Your task to perform on an android device: Go to CNN.com Image 0: 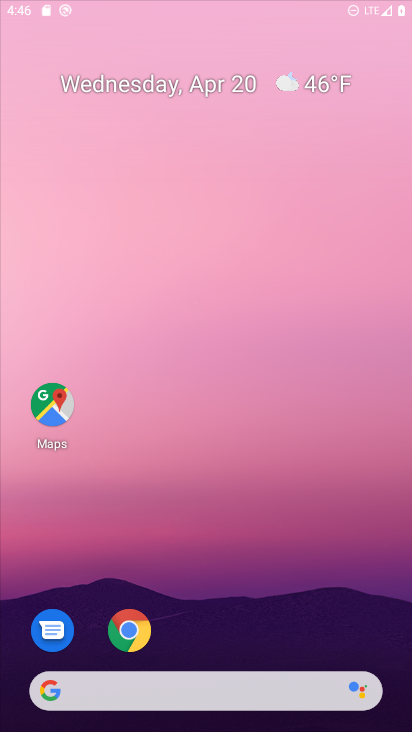
Step 0: click (295, 8)
Your task to perform on an android device: Go to CNN.com Image 1: 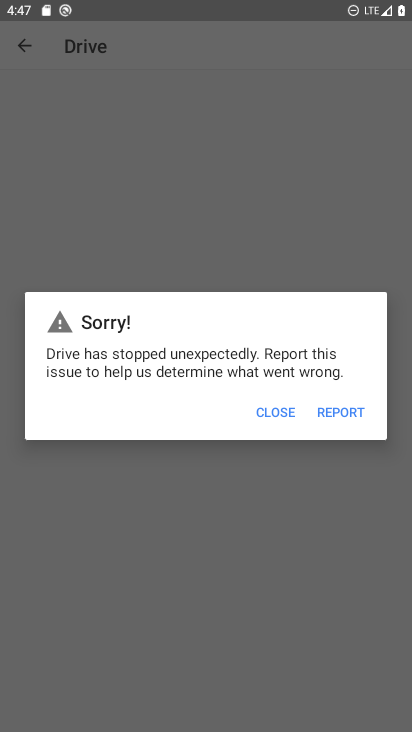
Step 1: press home button
Your task to perform on an android device: Go to CNN.com Image 2: 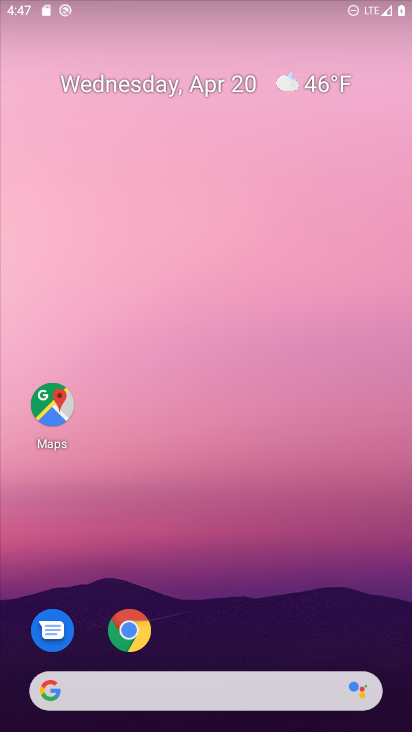
Step 2: drag from (286, 545) to (308, 0)
Your task to perform on an android device: Go to CNN.com Image 3: 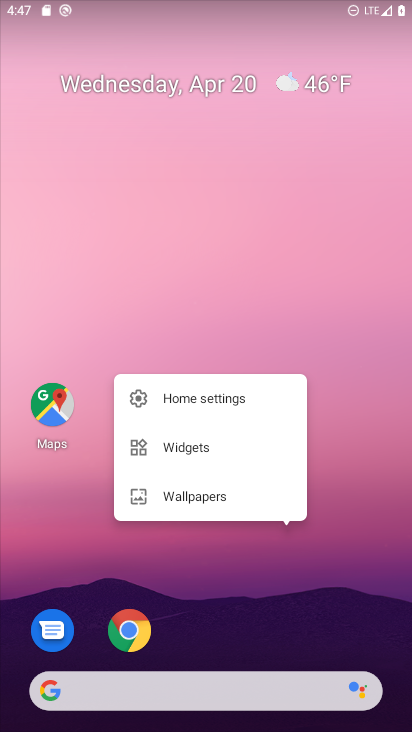
Step 3: click (332, 510)
Your task to perform on an android device: Go to CNN.com Image 4: 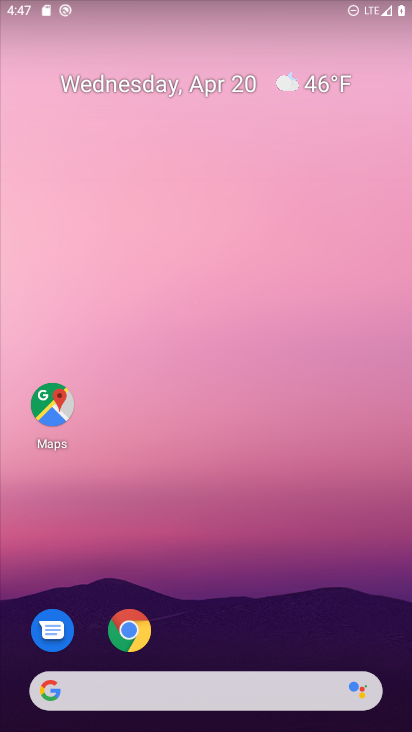
Step 4: drag from (311, 666) to (302, 21)
Your task to perform on an android device: Go to CNN.com Image 5: 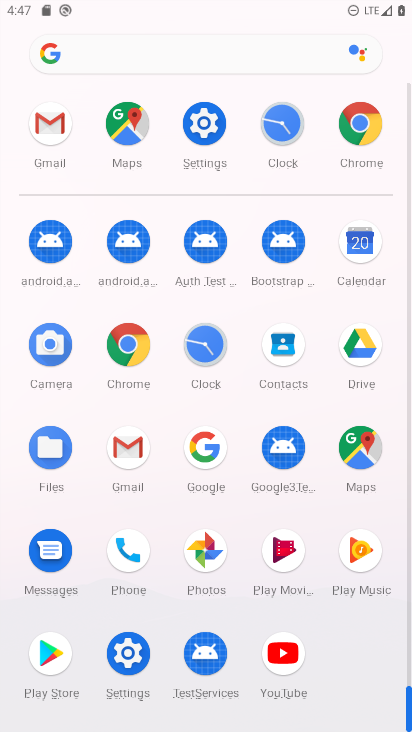
Step 5: click (125, 347)
Your task to perform on an android device: Go to CNN.com Image 6: 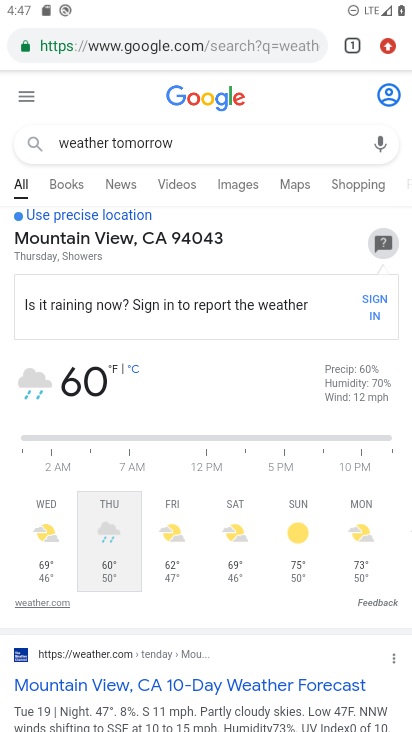
Step 6: click (292, 43)
Your task to perform on an android device: Go to CNN.com Image 7: 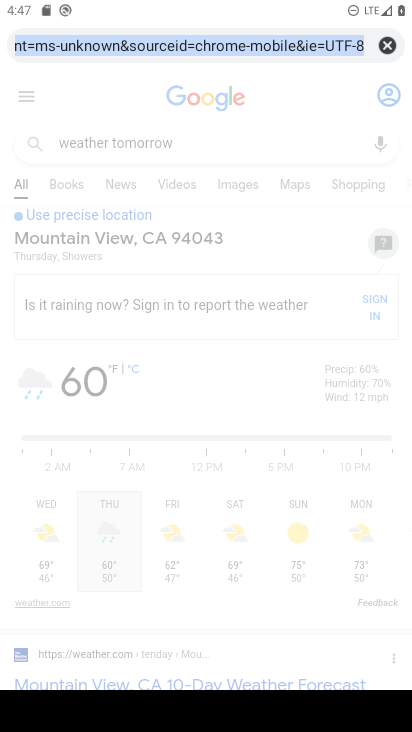
Step 7: click (391, 45)
Your task to perform on an android device: Go to CNN.com Image 8: 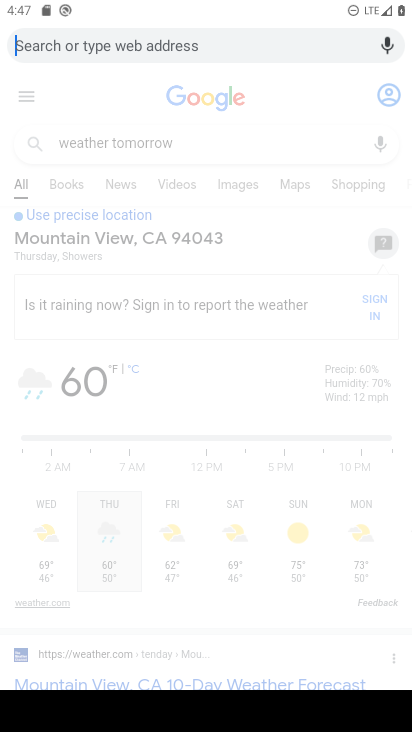
Step 8: type "cnn.com"
Your task to perform on an android device: Go to CNN.com Image 9: 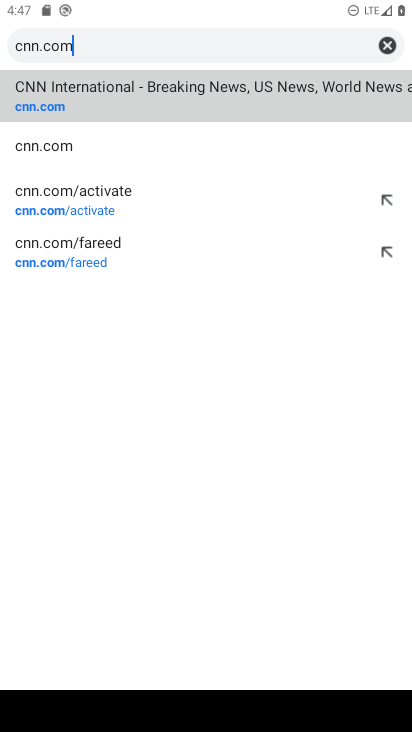
Step 9: click (107, 99)
Your task to perform on an android device: Go to CNN.com Image 10: 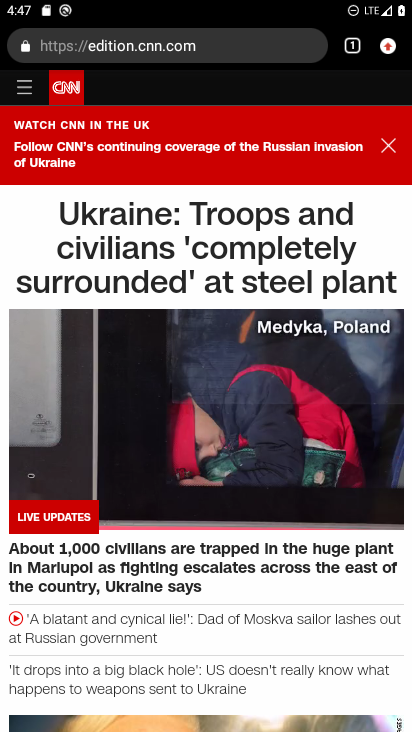
Step 10: task complete